Your task to perform on an android device: turn pop-ups on in chrome Image 0: 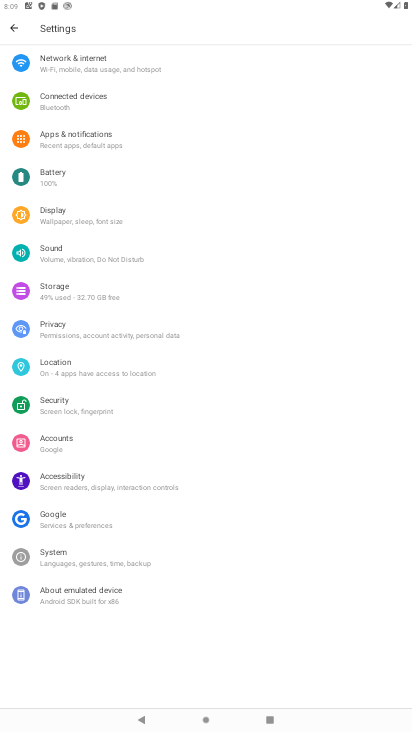
Step 0: press home button
Your task to perform on an android device: turn pop-ups on in chrome Image 1: 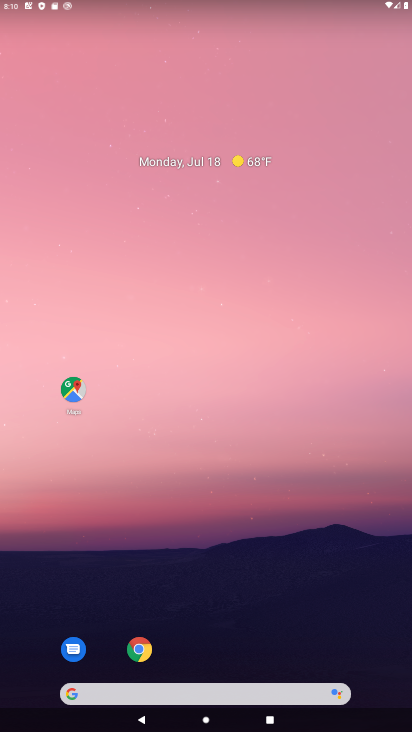
Step 1: click (147, 645)
Your task to perform on an android device: turn pop-ups on in chrome Image 2: 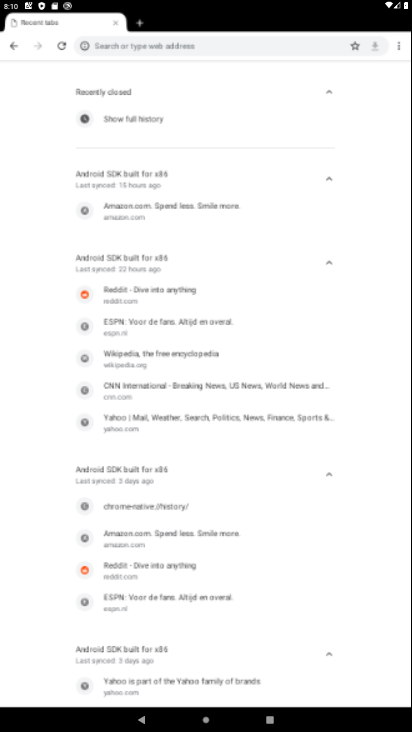
Step 2: click (399, 44)
Your task to perform on an android device: turn pop-ups on in chrome Image 3: 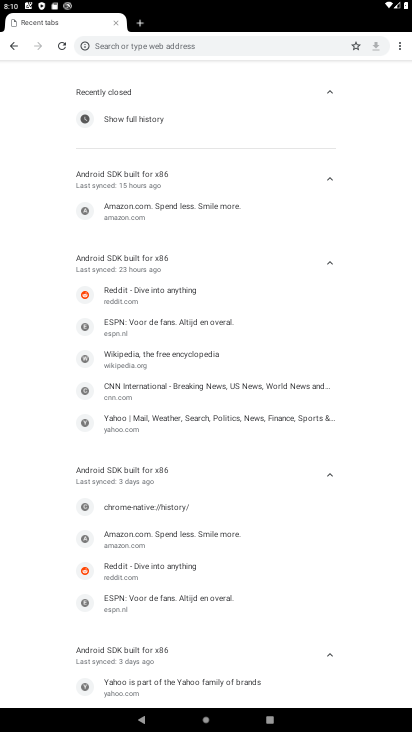
Step 3: click (401, 47)
Your task to perform on an android device: turn pop-ups on in chrome Image 4: 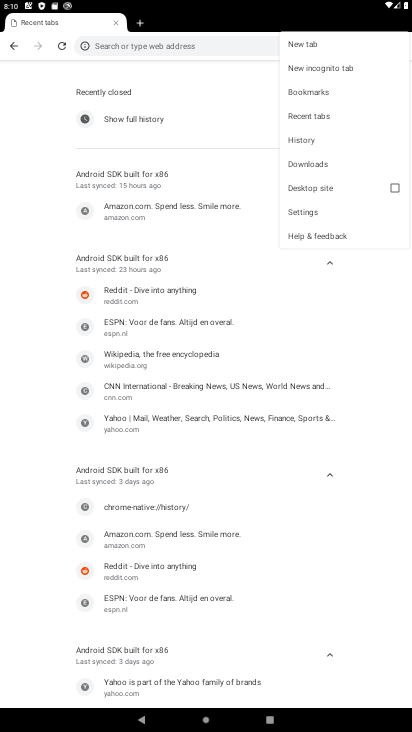
Step 4: click (320, 215)
Your task to perform on an android device: turn pop-ups on in chrome Image 5: 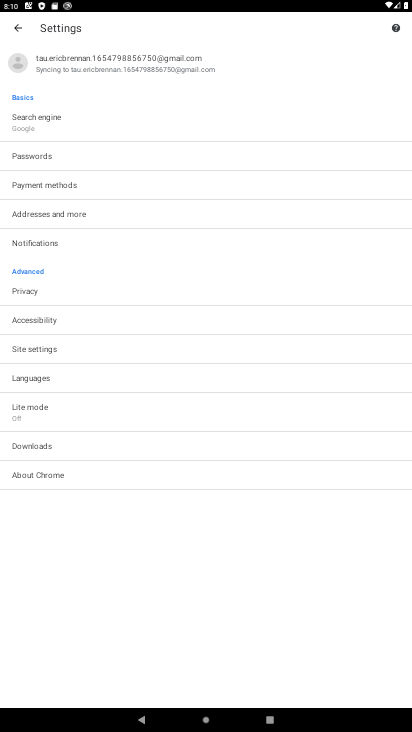
Step 5: click (59, 349)
Your task to perform on an android device: turn pop-ups on in chrome Image 6: 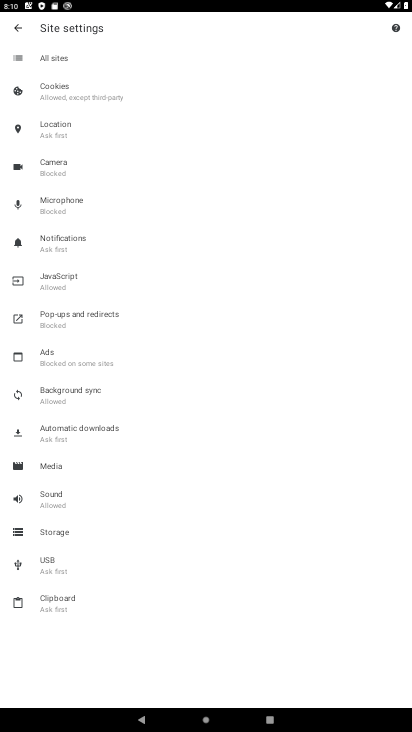
Step 6: click (104, 314)
Your task to perform on an android device: turn pop-ups on in chrome Image 7: 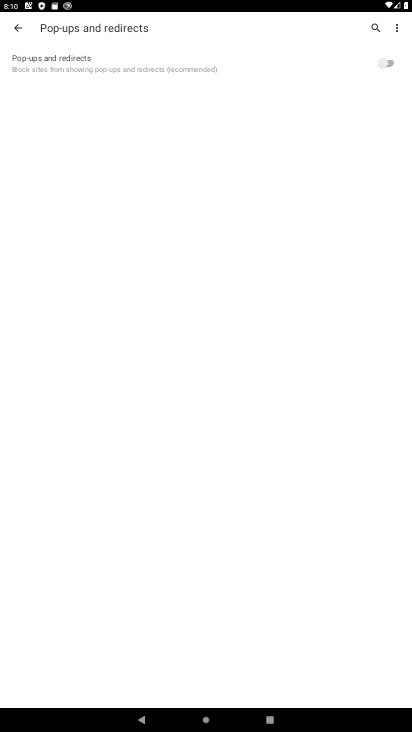
Step 7: click (386, 64)
Your task to perform on an android device: turn pop-ups on in chrome Image 8: 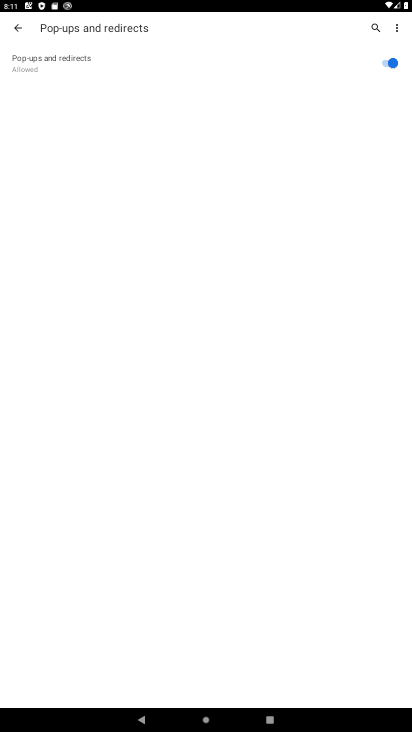
Step 8: task complete